Your task to perform on an android device: Set the phone to "Do not disturb". Image 0: 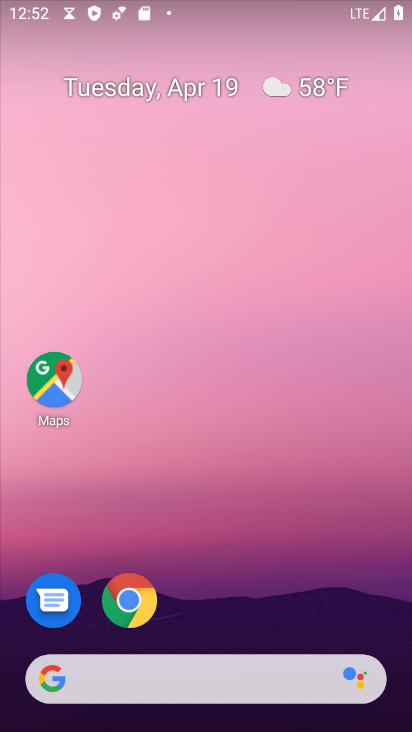
Step 0: drag from (151, 665) to (162, 389)
Your task to perform on an android device: Set the phone to "Do not disturb". Image 1: 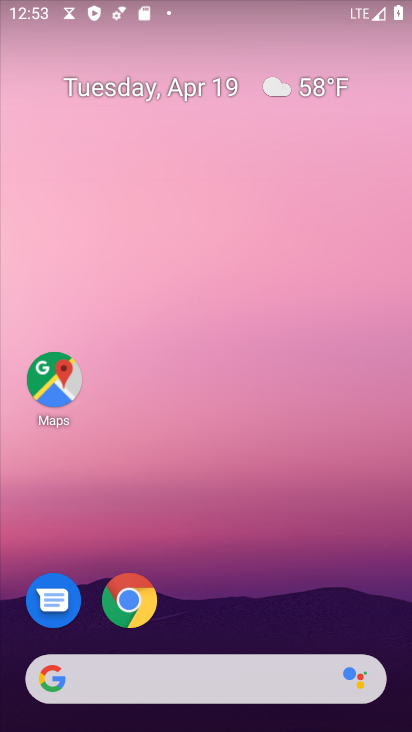
Step 1: drag from (189, 674) to (124, 76)
Your task to perform on an android device: Set the phone to "Do not disturb". Image 2: 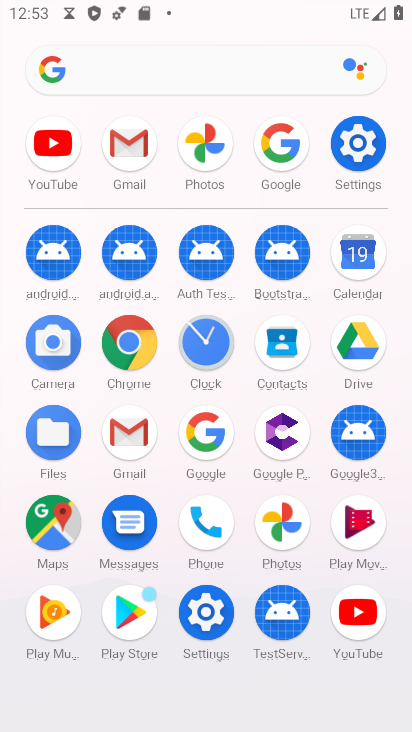
Step 2: click (210, 607)
Your task to perform on an android device: Set the phone to "Do not disturb". Image 3: 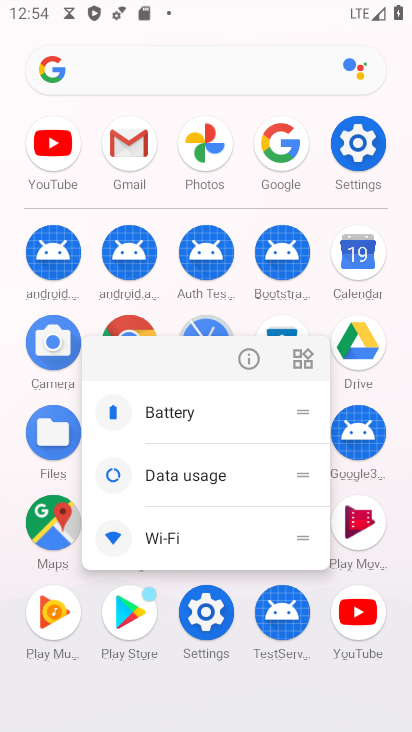
Step 3: click (223, 607)
Your task to perform on an android device: Set the phone to "Do not disturb". Image 4: 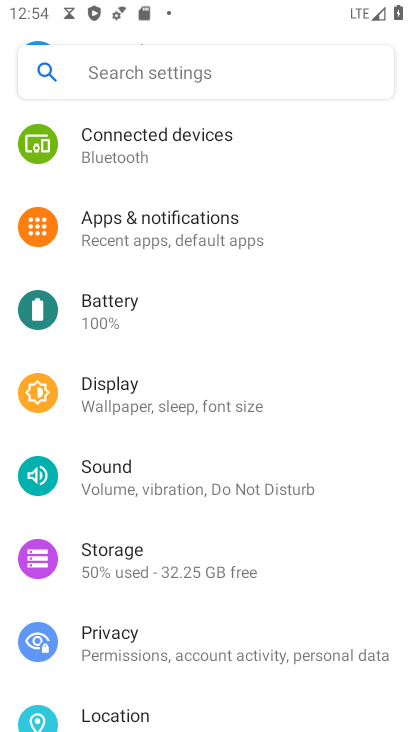
Step 4: click (151, 478)
Your task to perform on an android device: Set the phone to "Do not disturb". Image 5: 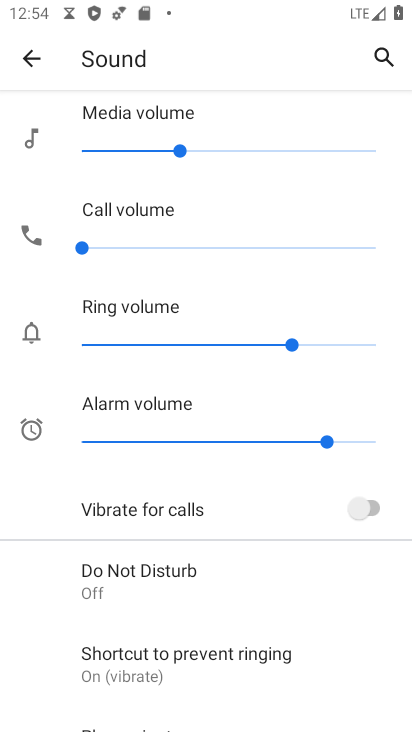
Step 5: click (173, 582)
Your task to perform on an android device: Set the phone to "Do not disturb". Image 6: 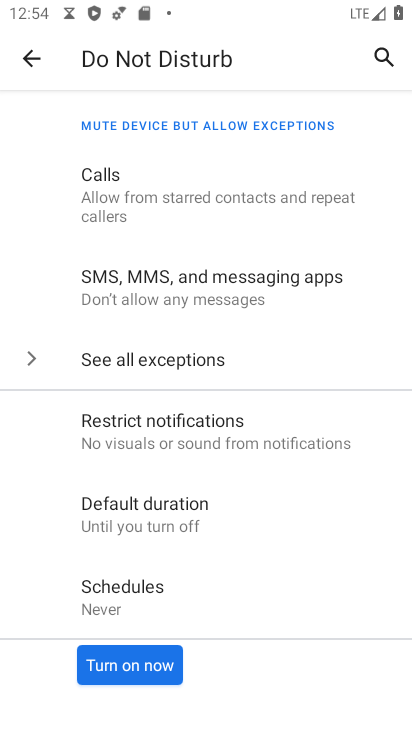
Step 6: click (149, 673)
Your task to perform on an android device: Set the phone to "Do not disturb". Image 7: 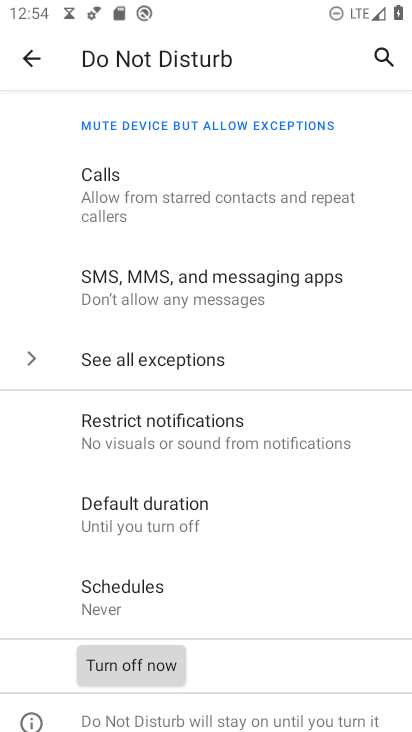
Step 7: task complete